Your task to perform on an android device: Open Google Chrome and click the shortcut for Amazon.com Image 0: 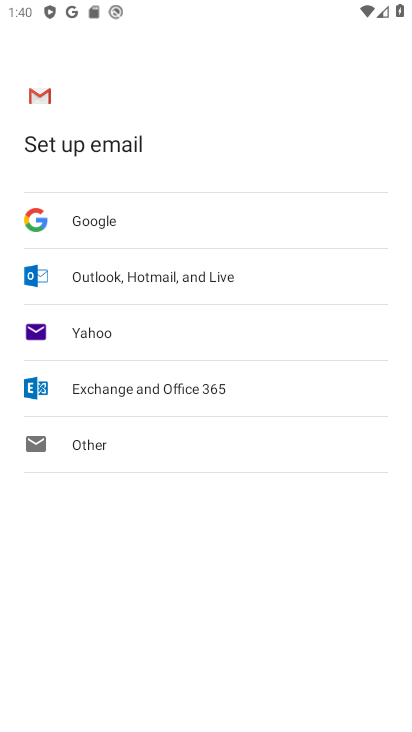
Step 0: press home button
Your task to perform on an android device: Open Google Chrome and click the shortcut for Amazon.com Image 1: 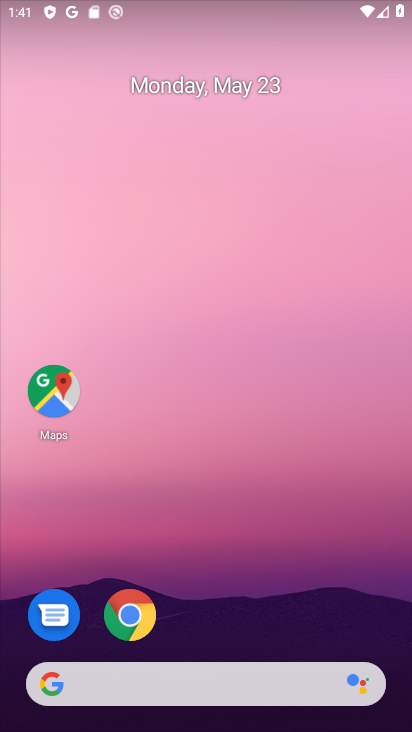
Step 1: click (126, 622)
Your task to perform on an android device: Open Google Chrome and click the shortcut for Amazon.com Image 2: 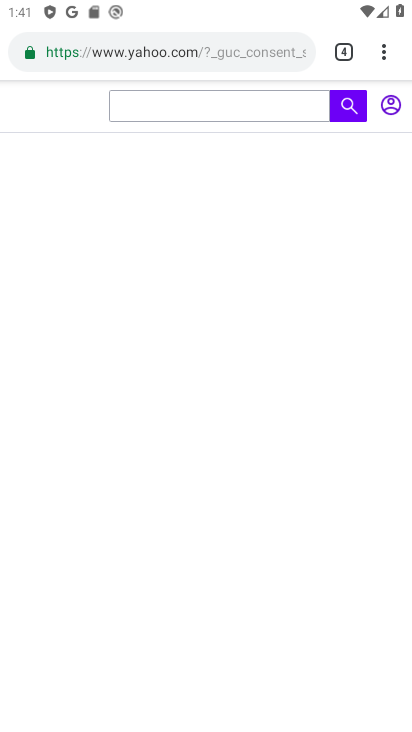
Step 2: click (341, 48)
Your task to perform on an android device: Open Google Chrome and click the shortcut for Amazon.com Image 3: 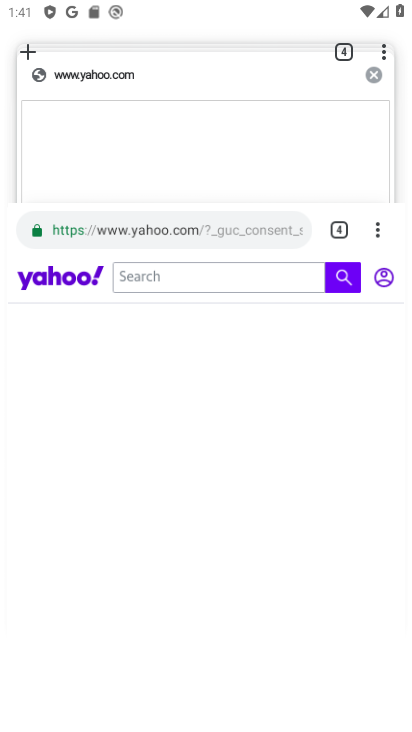
Step 3: click (28, 50)
Your task to perform on an android device: Open Google Chrome and click the shortcut for Amazon.com Image 4: 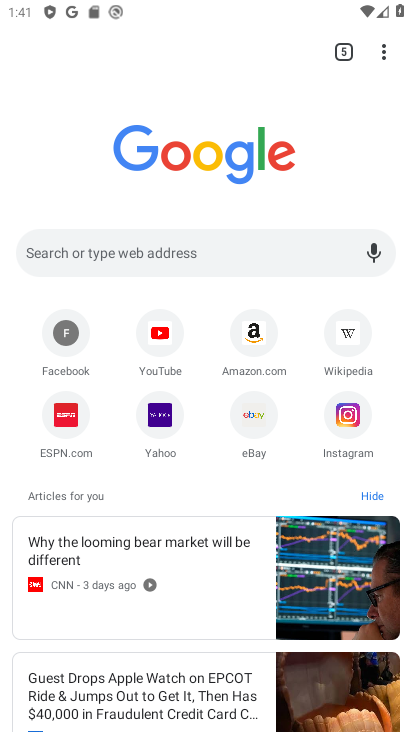
Step 4: click (261, 326)
Your task to perform on an android device: Open Google Chrome and click the shortcut for Amazon.com Image 5: 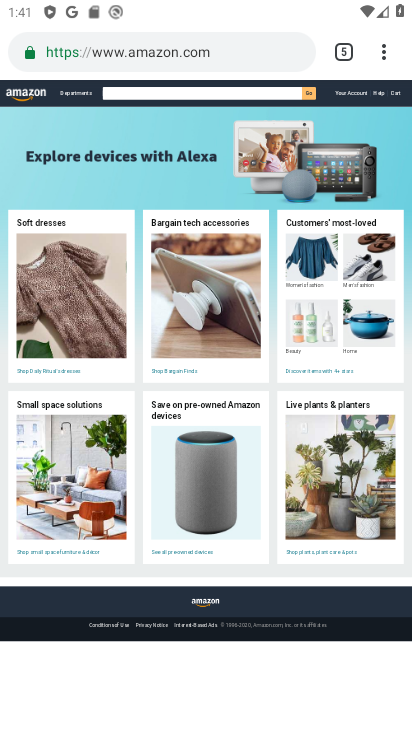
Step 5: task complete